Your task to perform on an android device: toggle javascript in the chrome app Image 0: 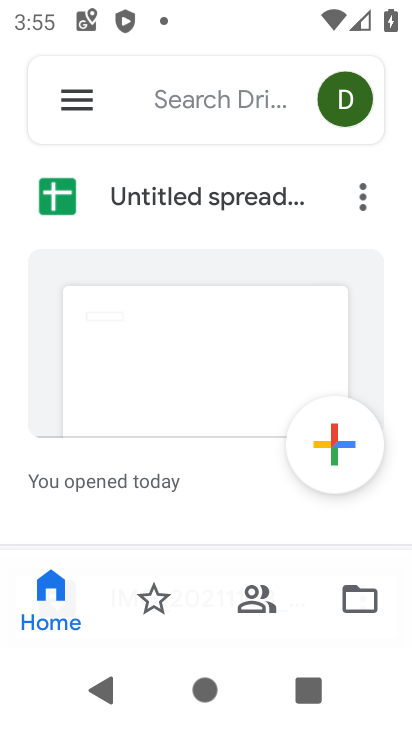
Step 0: task complete